Your task to perform on an android device: Go to wifi settings Image 0: 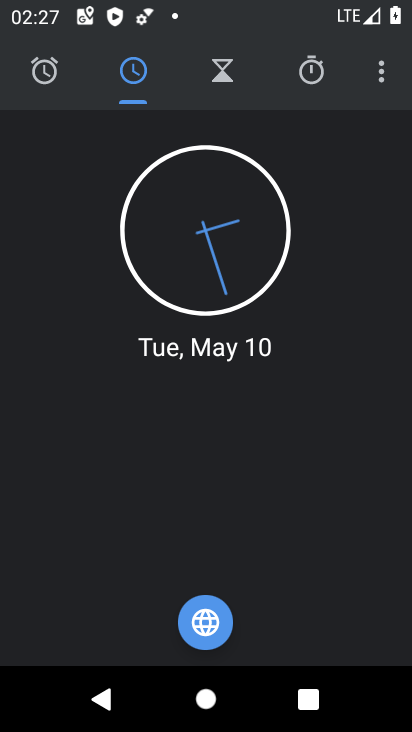
Step 0: press home button
Your task to perform on an android device: Go to wifi settings Image 1: 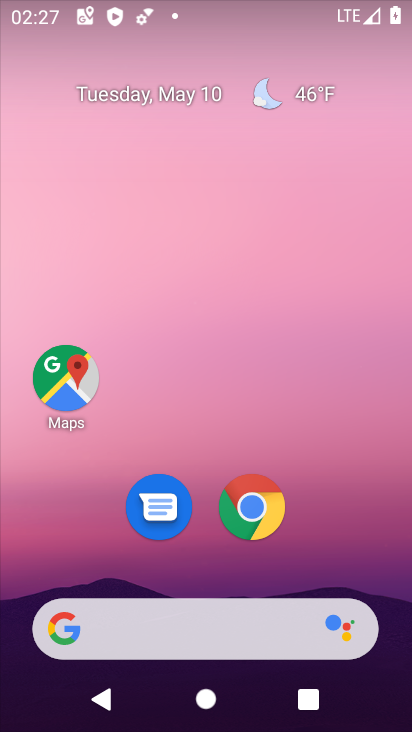
Step 1: drag from (227, 675) to (223, 169)
Your task to perform on an android device: Go to wifi settings Image 2: 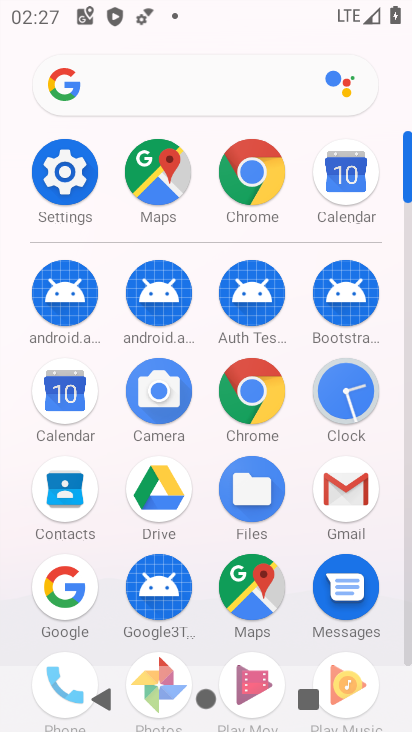
Step 2: click (65, 204)
Your task to perform on an android device: Go to wifi settings Image 3: 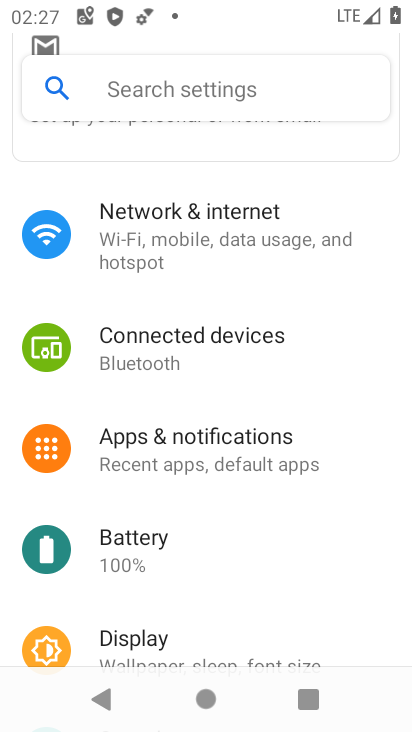
Step 3: click (203, 228)
Your task to perform on an android device: Go to wifi settings Image 4: 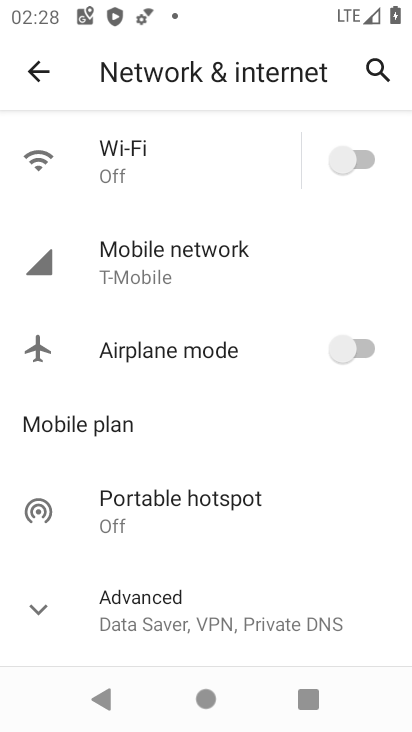
Step 4: click (120, 180)
Your task to perform on an android device: Go to wifi settings Image 5: 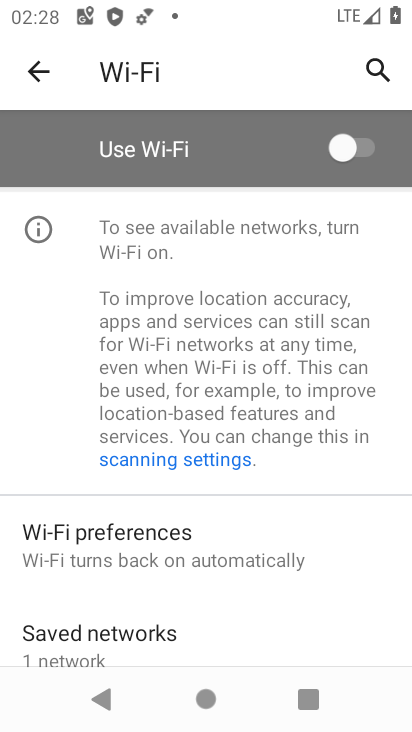
Step 5: click (349, 136)
Your task to perform on an android device: Go to wifi settings Image 6: 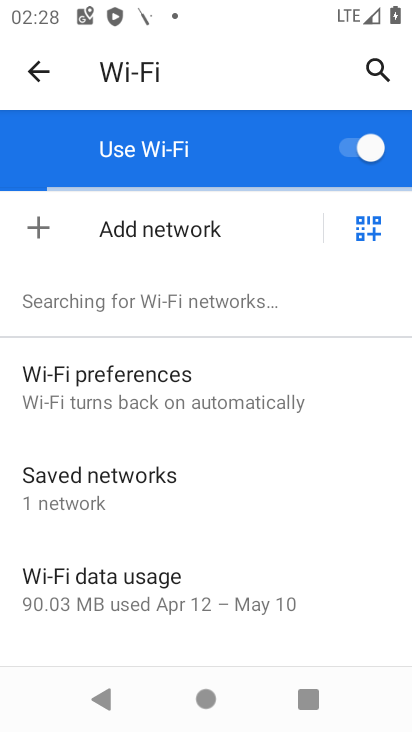
Step 6: task complete